Your task to perform on an android device: Check the weather Image 0: 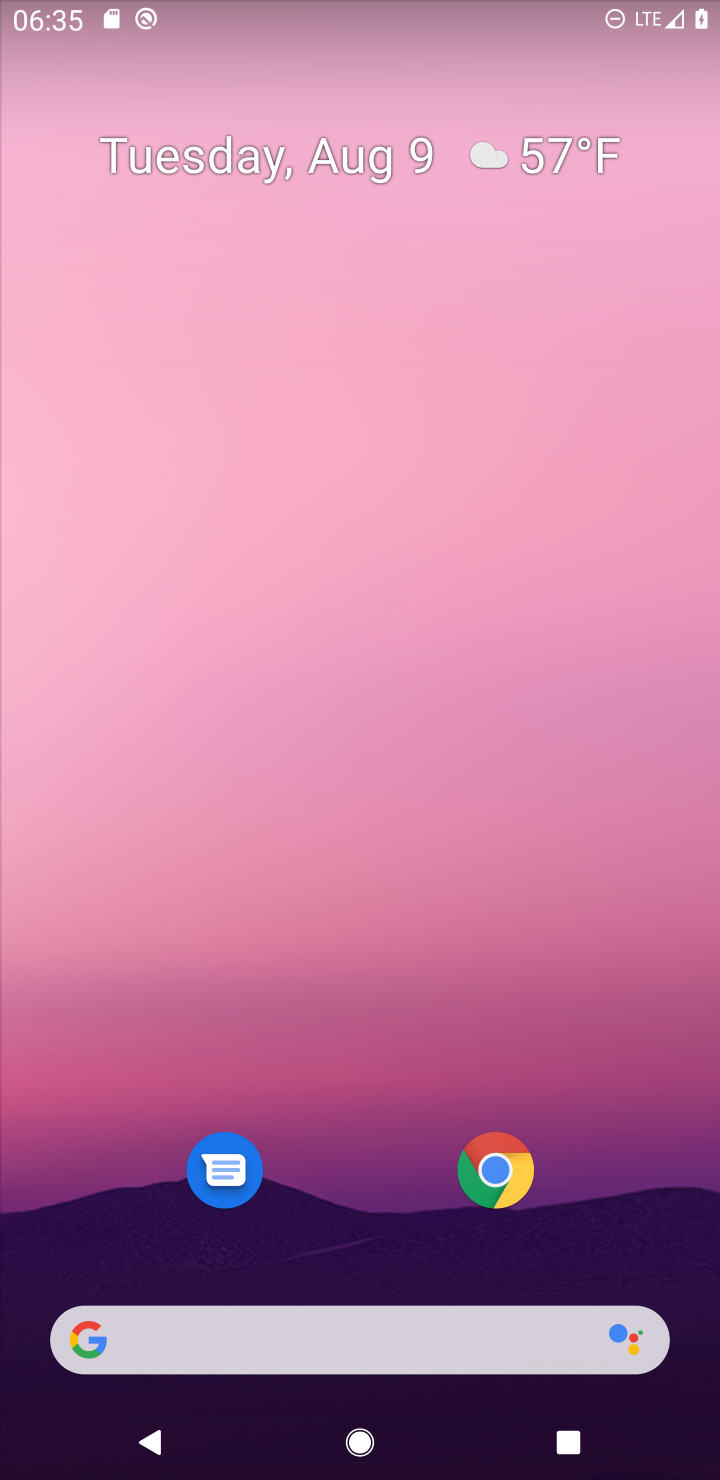
Step 0: press home button
Your task to perform on an android device: Check the weather Image 1: 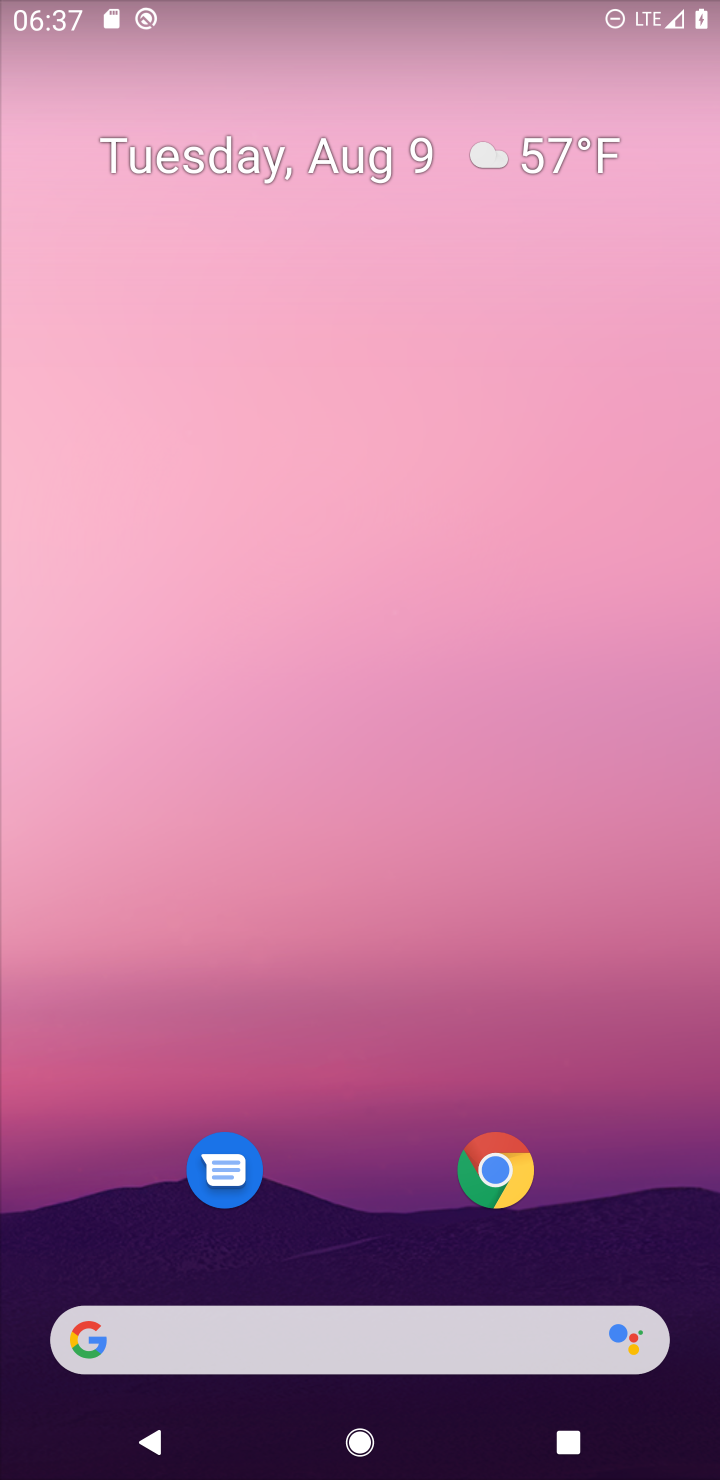
Step 1: click (90, 1346)
Your task to perform on an android device: Check the weather Image 2: 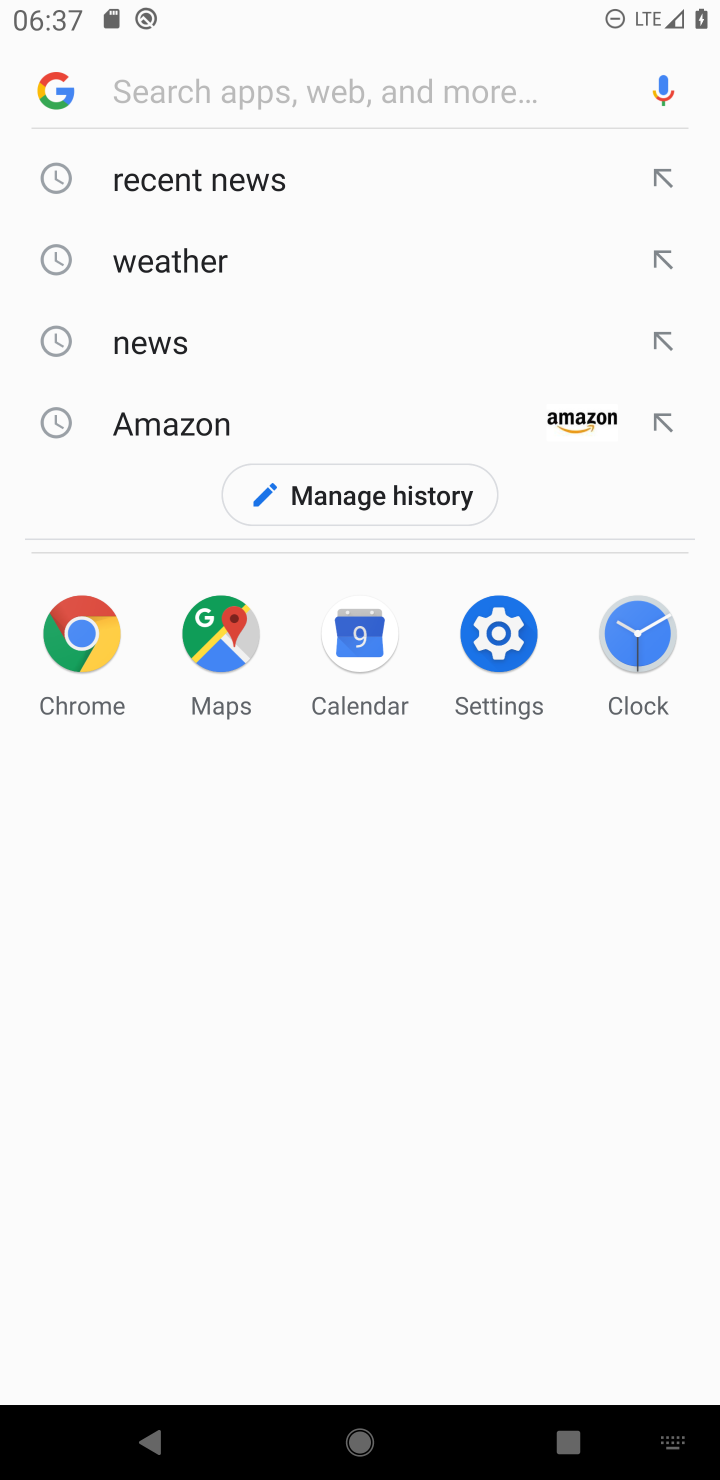
Step 2: click (180, 249)
Your task to perform on an android device: Check the weather Image 3: 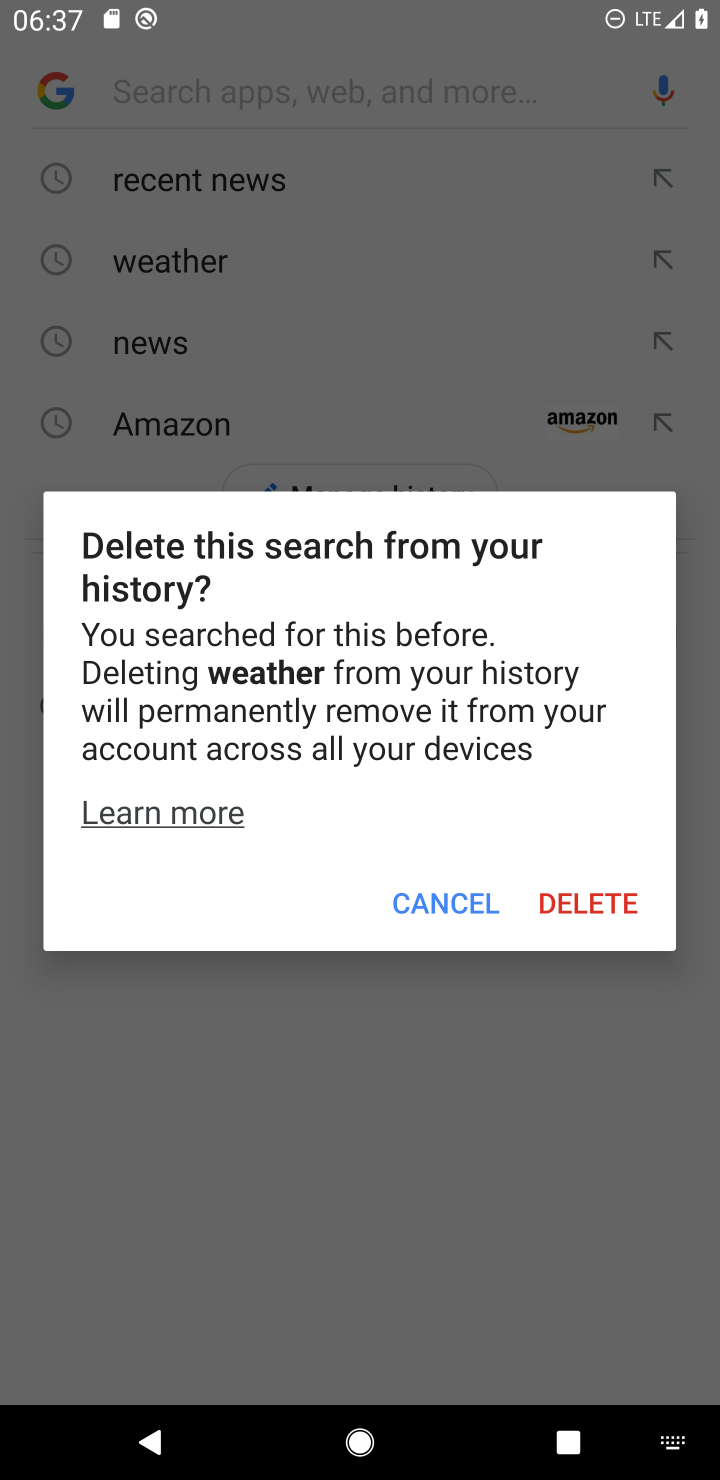
Step 3: click (477, 910)
Your task to perform on an android device: Check the weather Image 4: 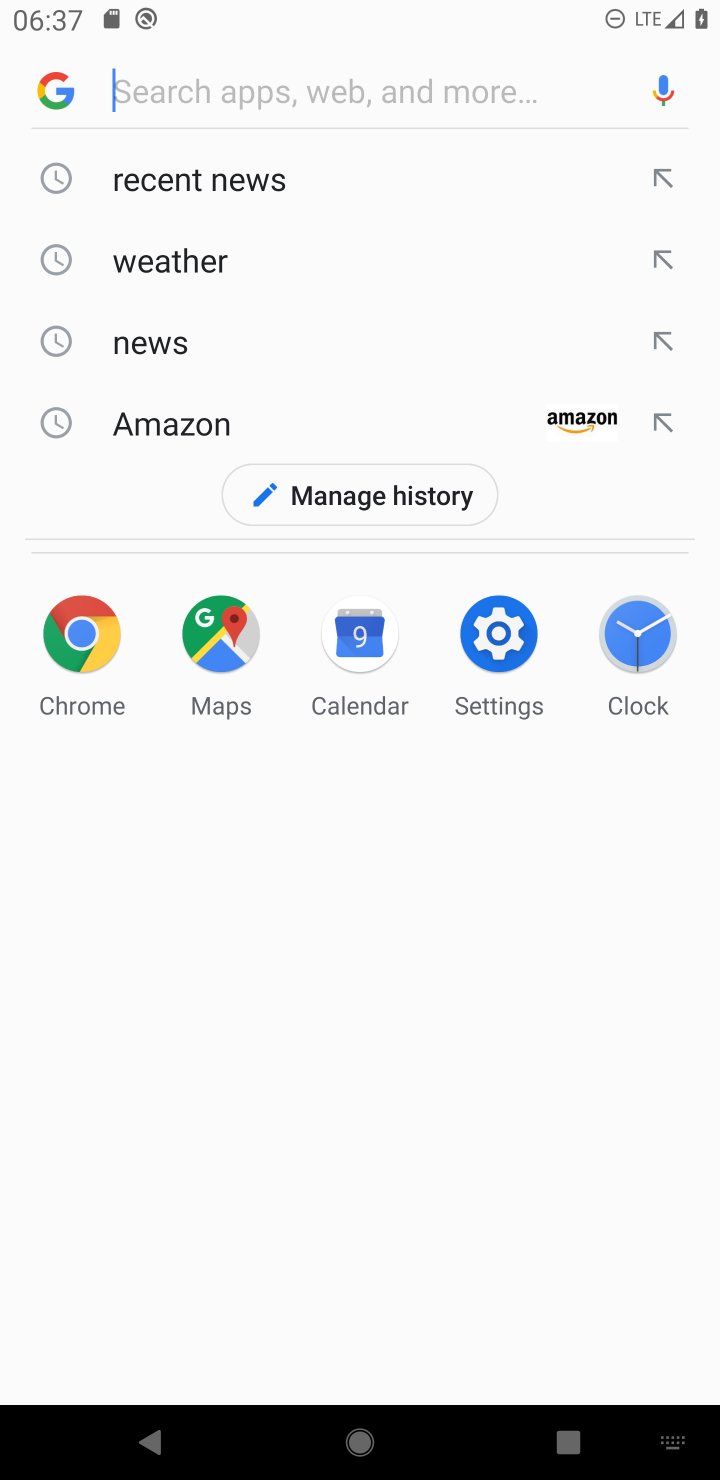
Step 4: type " weather"
Your task to perform on an android device: Check the weather Image 5: 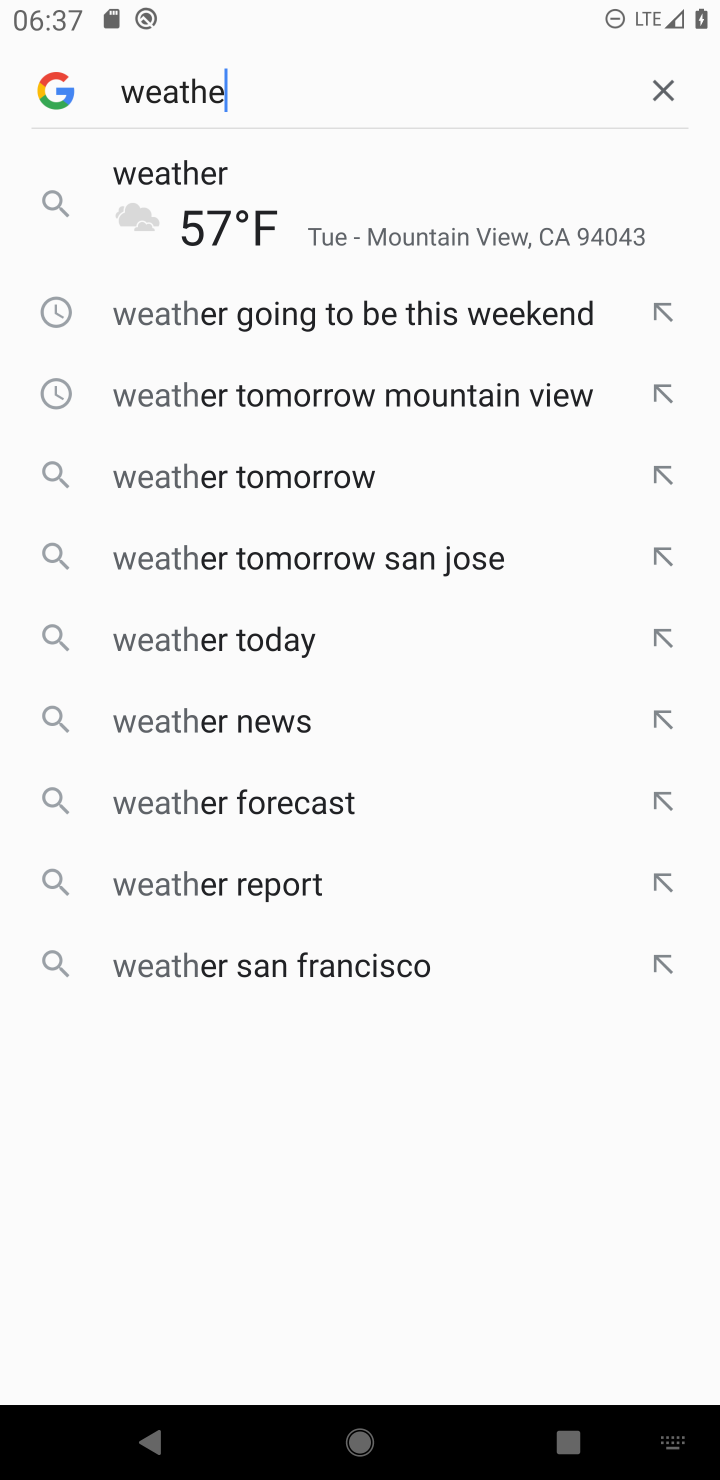
Step 5: press enter
Your task to perform on an android device: Check the weather Image 6: 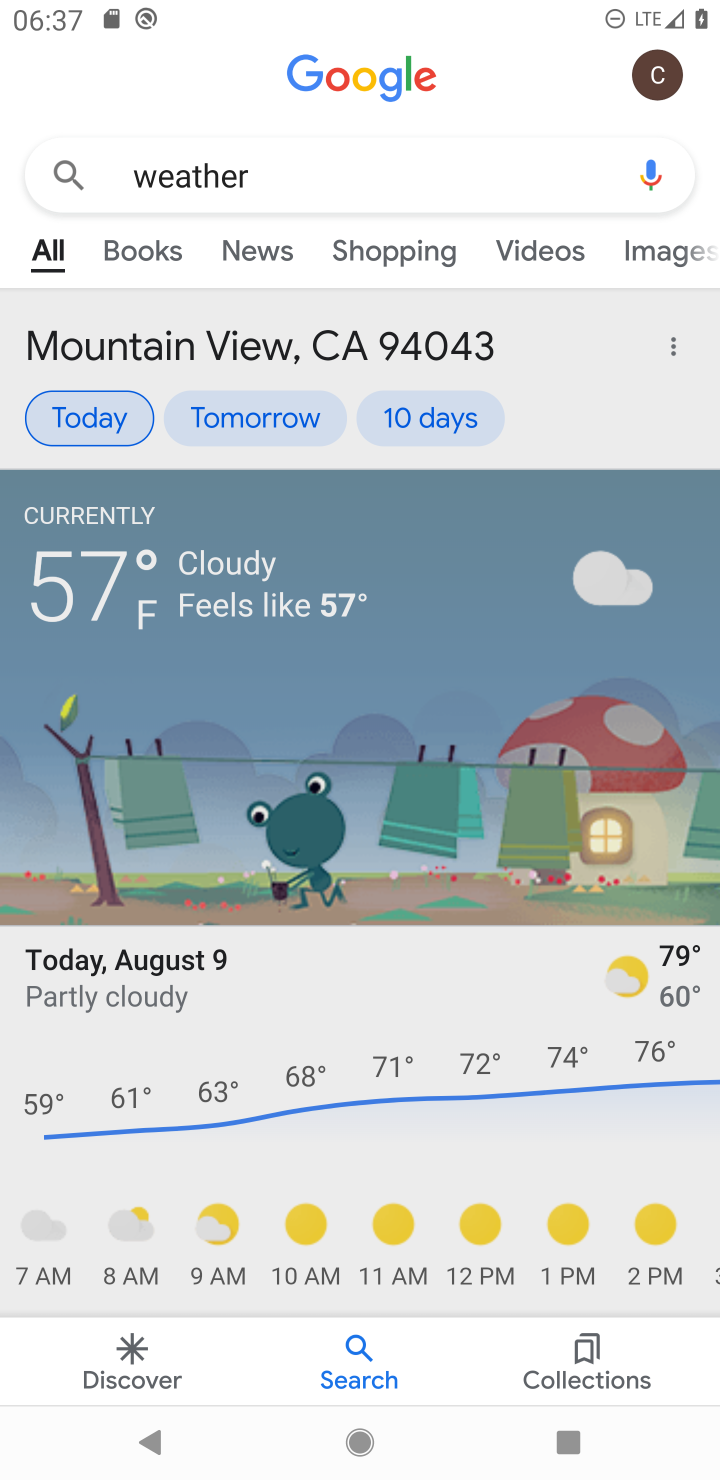
Step 6: task complete